Your task to perform on an android device: turn on airplane mode Image 0: 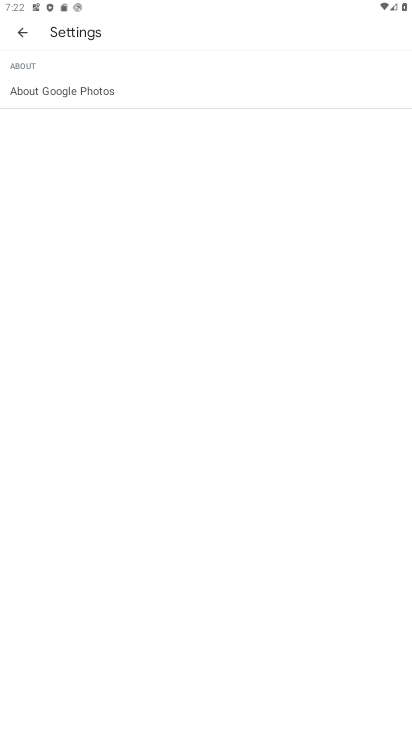
Step 0: press home button
Your task to perform on an android device: turn on airplane mode Image 1: 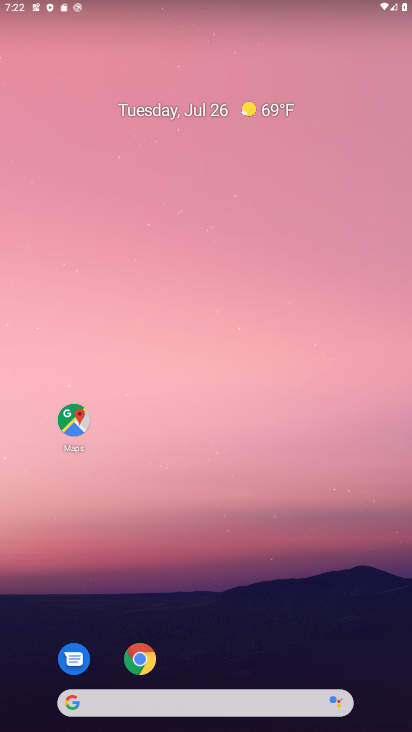
Step 1: drag from (247, 719) to (266, 49)
Your task to perform on an android device: turn on airplane mode Image 2: 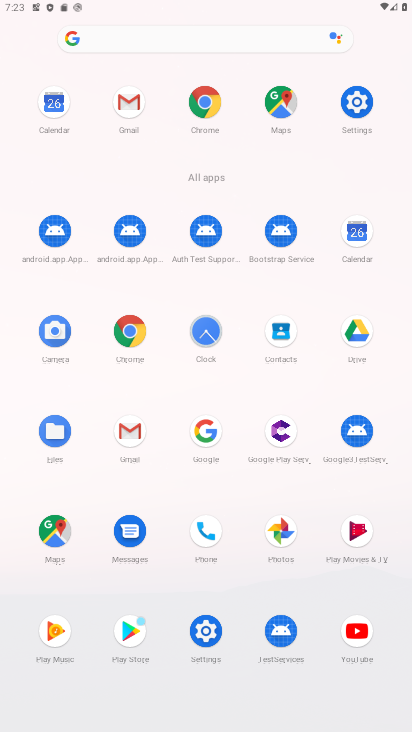
Step 2: drag from (353, 114) to (274, 678)
Your task to perform on an android device: turn on airplane mode Image 3: 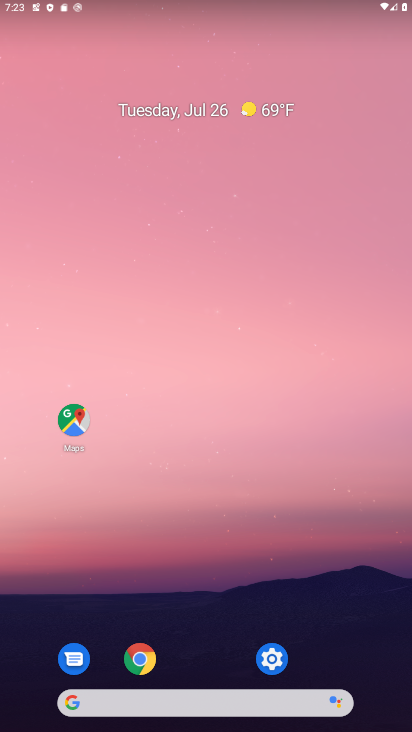
Step 3: click (274, 660)
Your task to perform on an android device: turn on airplane mode Image 4: 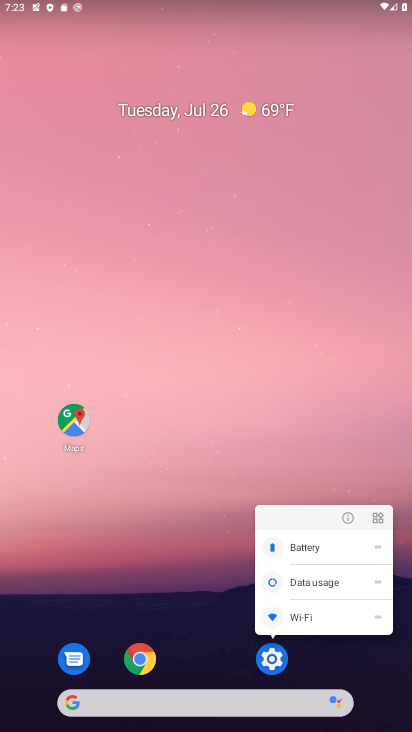
Step 4: click (274, 660)
Your task to perform on an android device: turn on airplane mode Image 5: 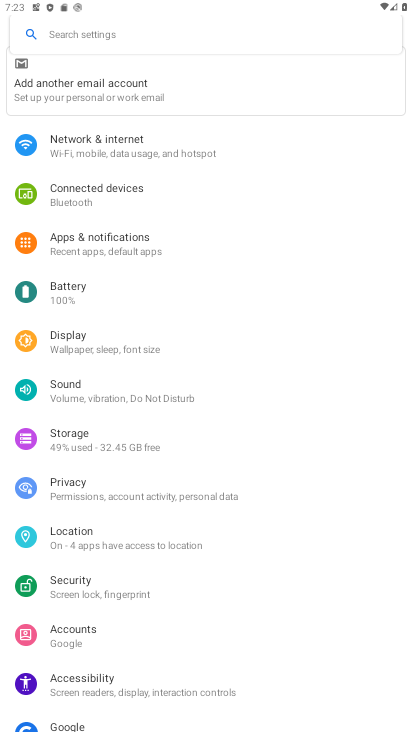
Step 5: click (154, 147)
Your task to perform on an android device: turn on airplane mode Image 6: 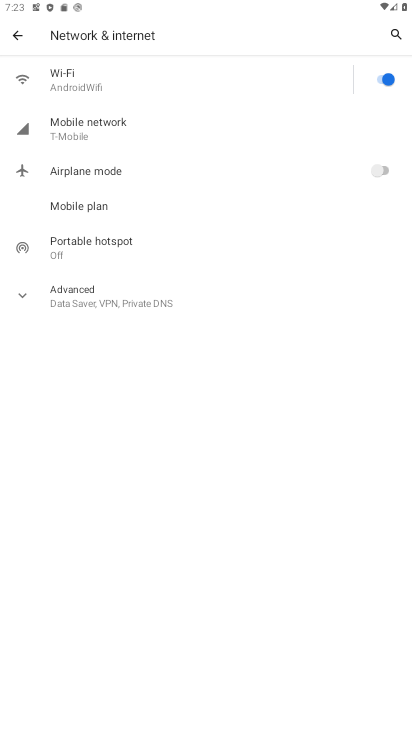
Step 6: click (207, 185)
Your task to perform on an android device: turn on airplane mode Image 7: 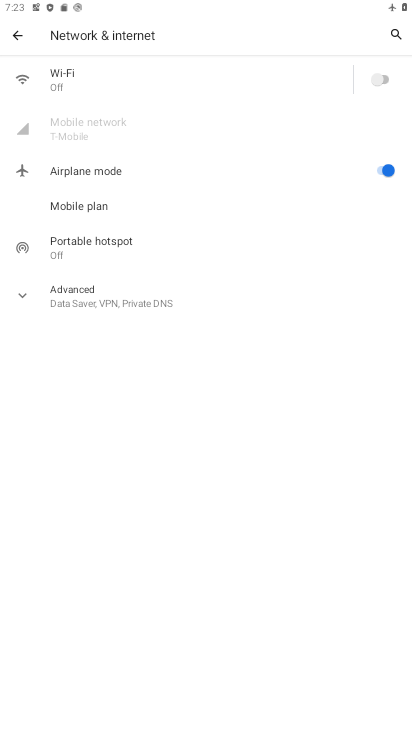
Step 7: task complete